Your task to perform on an android device: find snoozed emails in the gmail app Image 0: 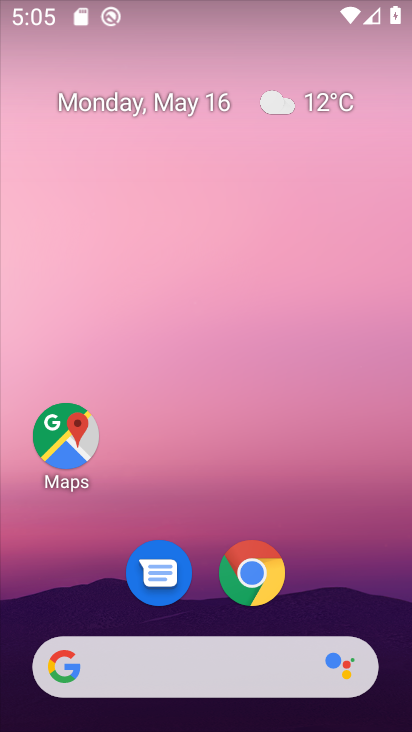
Step 0: drag from (206, 523) to (245, 101)
Your task to perform on an android device: find snoozed emails in the gmail app Image 1: 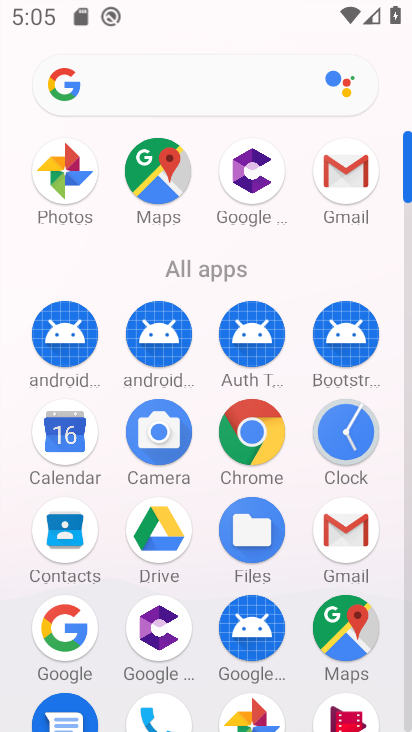
Step 1: click (331, 171)
Your task to perform on an android device: find snoozed emails in the gmail app Image 2: 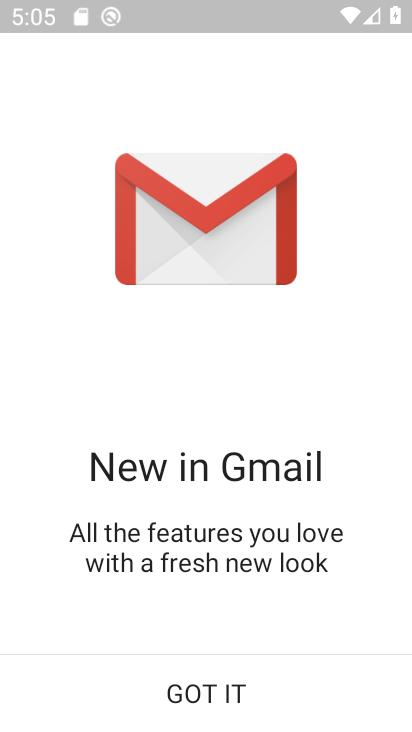
Step 2: click (184, 702)
Your task to perform on an android device: find snoozed emails in the gmail app Image 3: 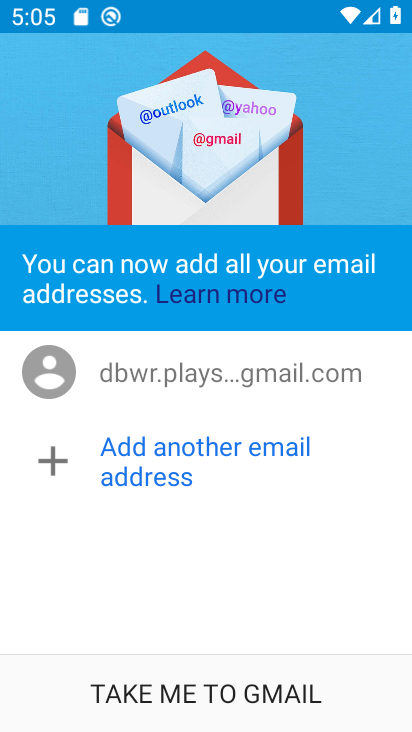
Step 3: click (209, 677)
Your task to perform on an android device: find snoozed emails in the gmail app Image 4: 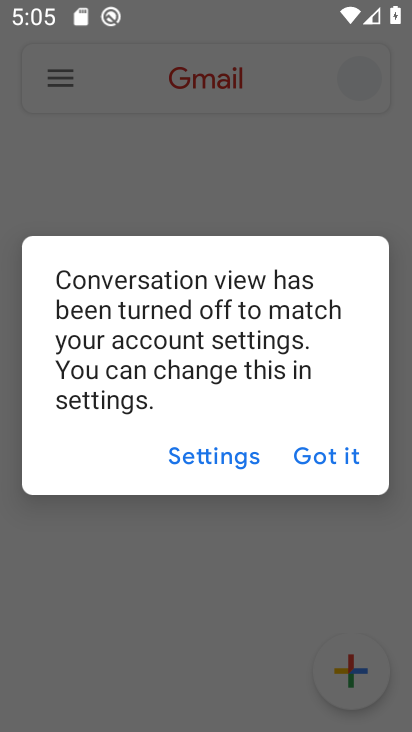
Step 4: click (324, 455)
Your task to perform on an android device: find snoozed emails in the gmail app Image 5: 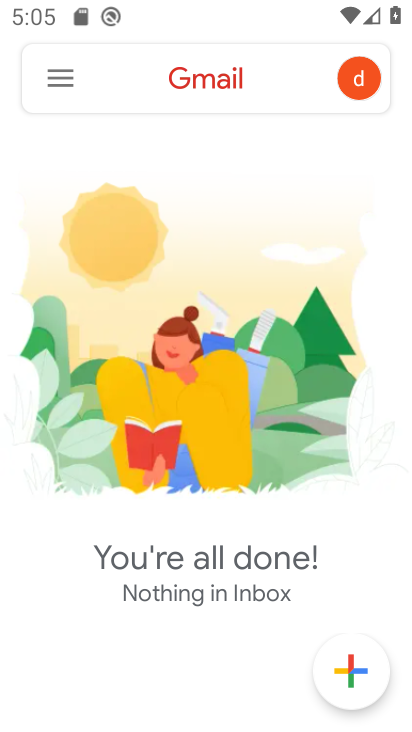
Step 5: click (47, 77)
Your task to perform on an android device: find snoozed emails in the gmail app Image 6: 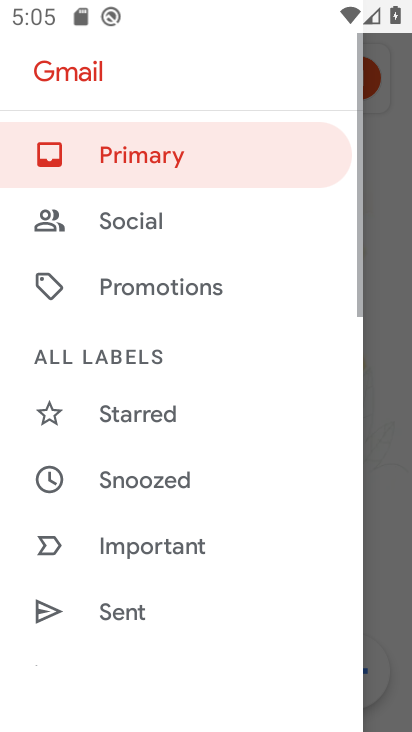
Step 6: click (154, 484)
Your task to perform on an android device: find snoozed emails in the gmail app Image 7: 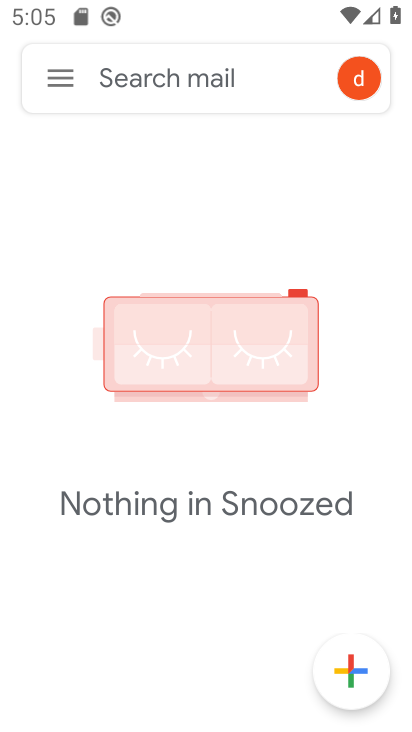
Step 7: task complete